Your task to perform on an android device: Open Reddit.com Image 0: 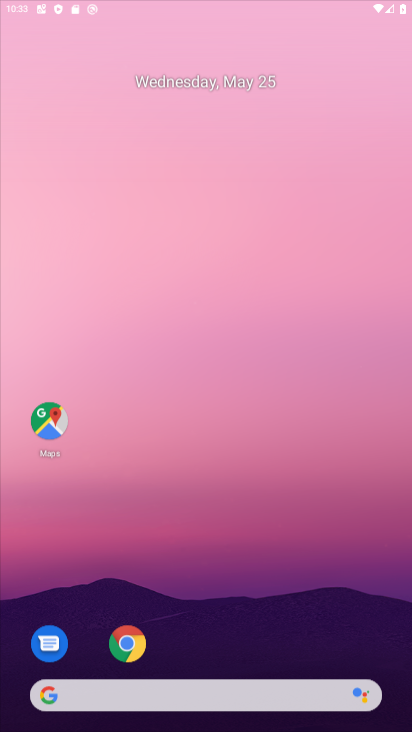
Step 0: drag from (153, 170) to (275, 59)
Your task to perform on an android device: Open Reddit.com Image 1: 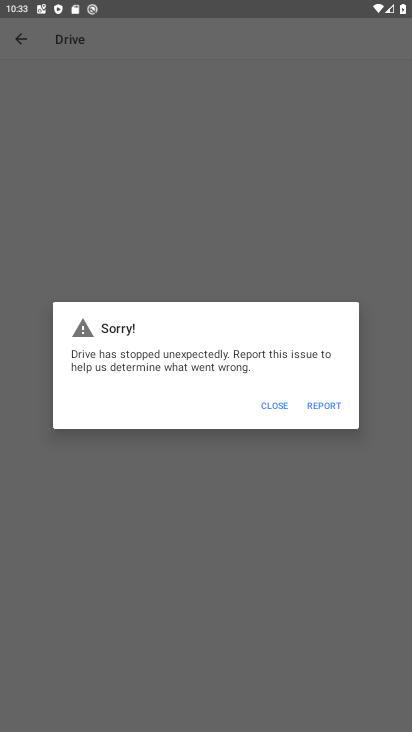
Step 1: press home button
Your task to perform on an android device: Open Reddit.com Image 2: 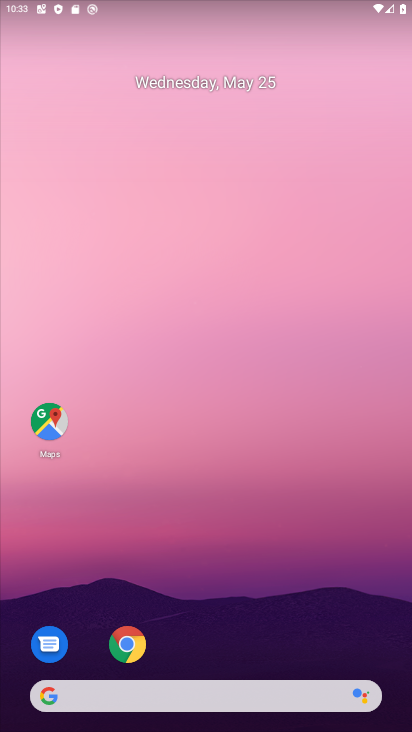
Step 2: click (127, 644)
Your task to perform on an android device: Open Reddit.com Image 3: 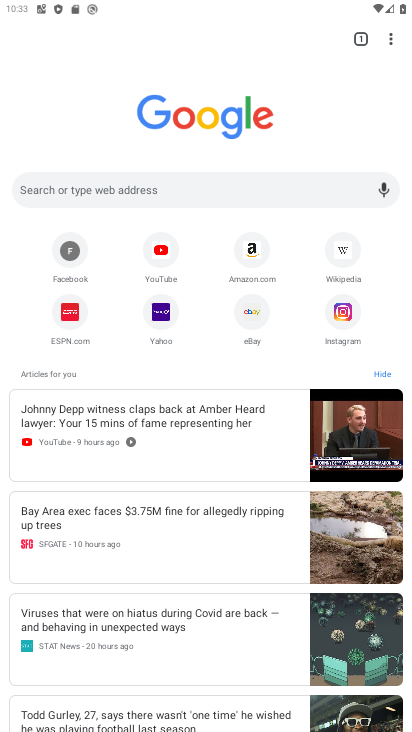
Step 3: click (217, 194)
Your task to perform on an android device: Open Reddit.com Image 4: 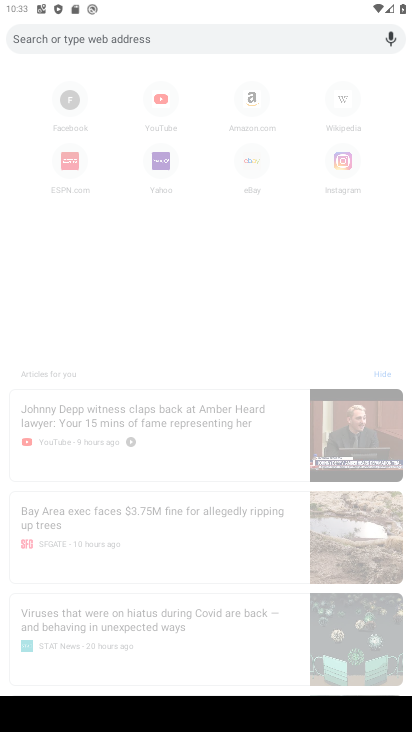
Step 4: type "reddit.com"
Your task to perform on an android device: Open Reddit.com Image 5: 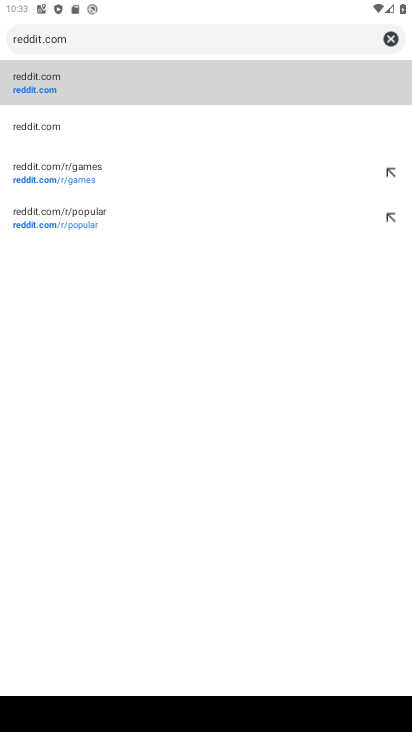
Step 5: click (57, 73)
Your task to perform on an android device: Open Reddit.com Image 6: 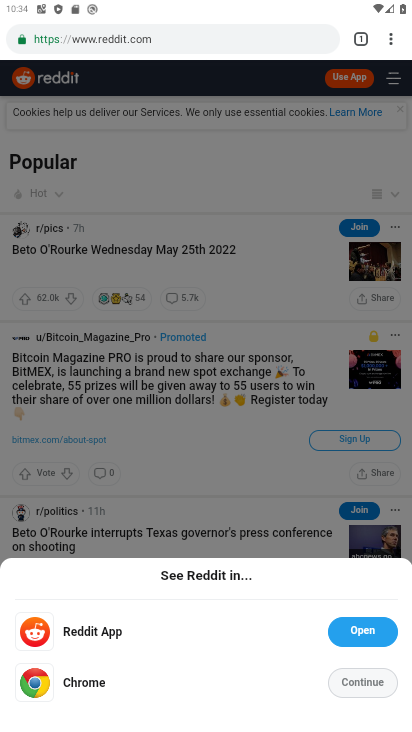
Step 6: click (360, 670)
Your task to perform on an android device: Open Reddit.com Image 7: 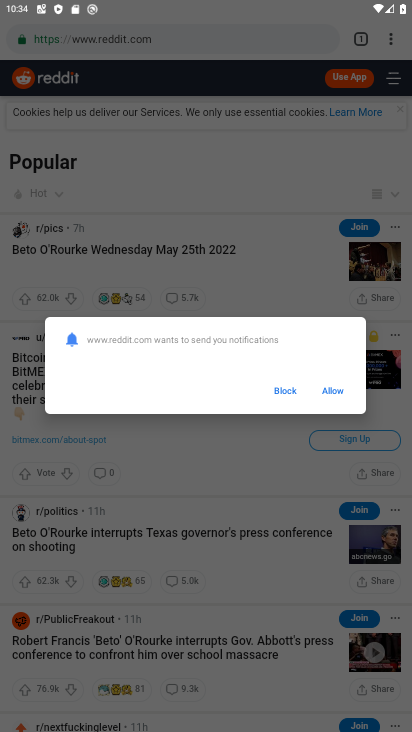
Step 7: click (338, 393)
Your task to perform on an android device: Open Reddit.com Image 8: 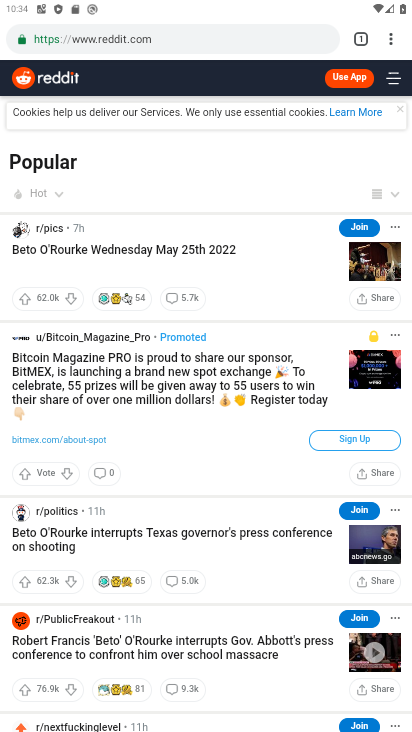
Step 8: task complete